Your task to perform on an android device: Search for the new Steph Curry shoes on Nike.com Image 0: 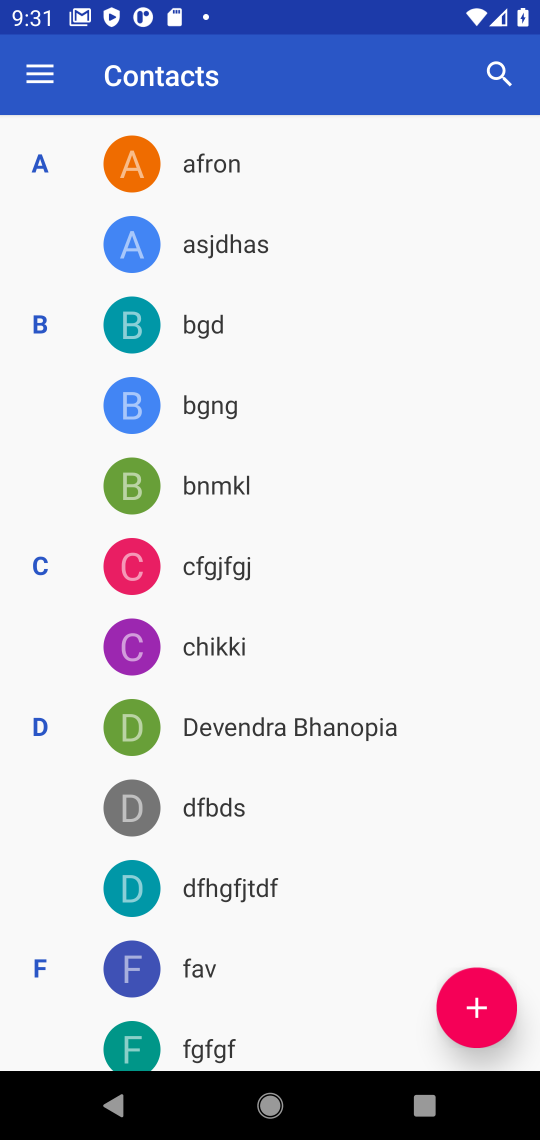
Step 0: press home button
Your task to perform on an android device: Search for the new Steph Curry shoes on Nike.com Image 1: 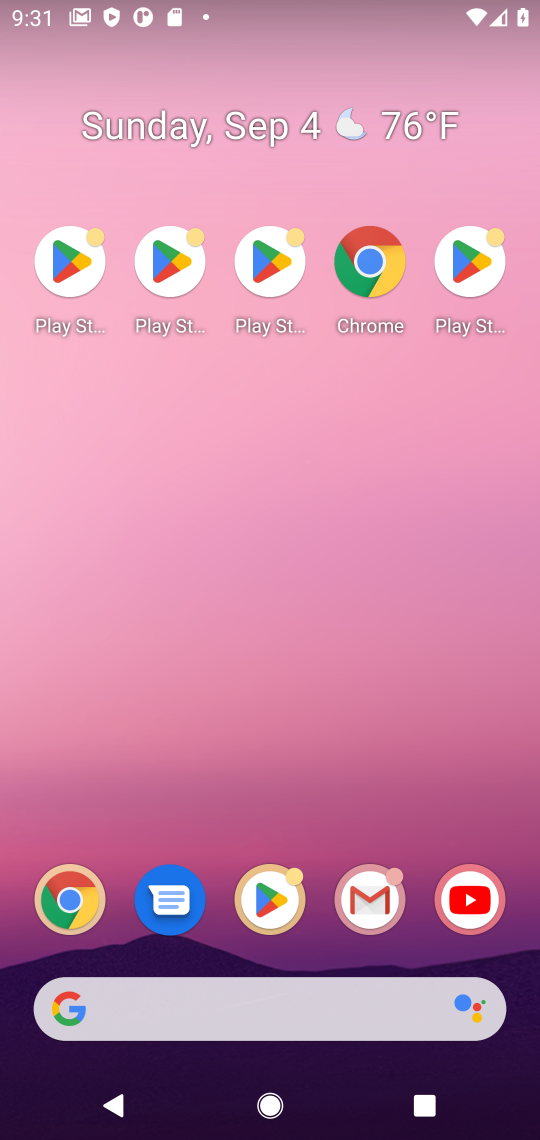
Step 1: drag from (290, 977) to (293, 74)
Your task to perform on an android device: Search for the new Steph Curry shoes on Nike.com Image 2: 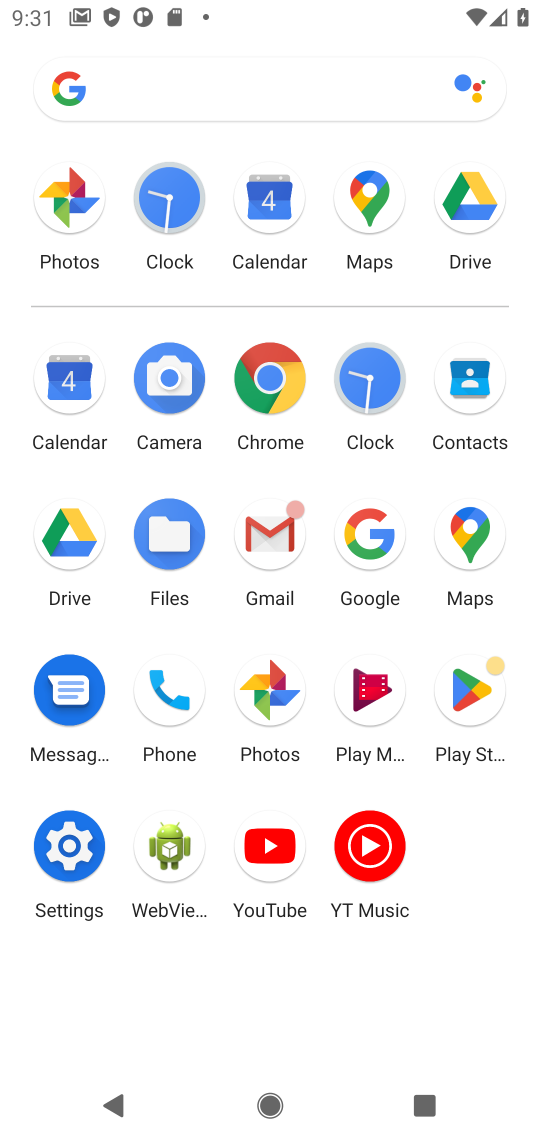
Step 2: click (298, 411)
Your task to perform on an android device: Search for the new Steph Curry shoes on Nike.com Image 3: 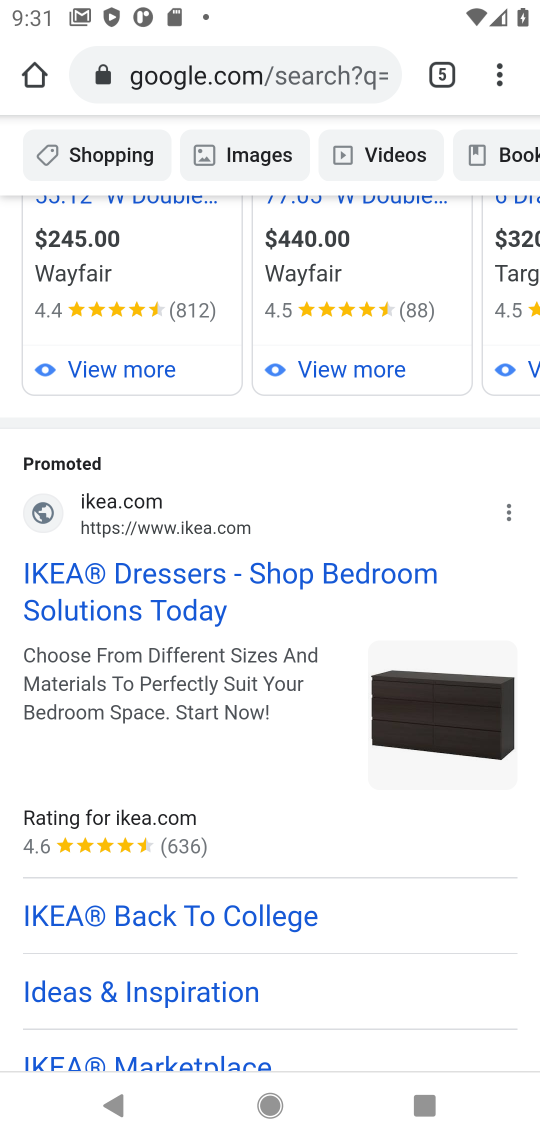
Step 3: click (448, 72)
Your task to perform on an android device: Search for the new Steph Curry shoes on Nike.com Image 4: 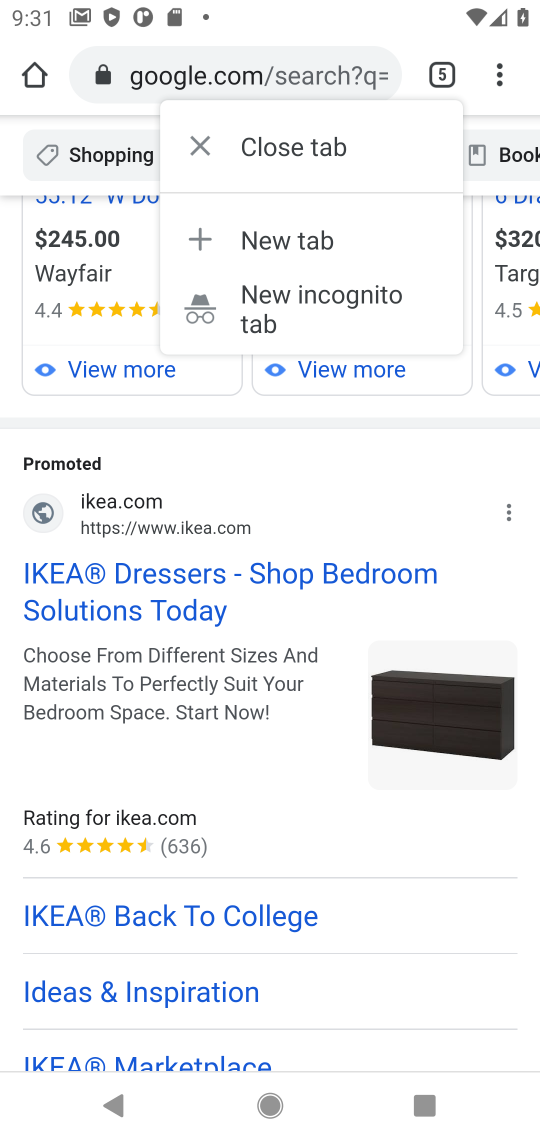
Step 4: click (298, 131)
Your task to perform on an android device: Search for the new Steph Curry shoes on Nike.com Image 5: 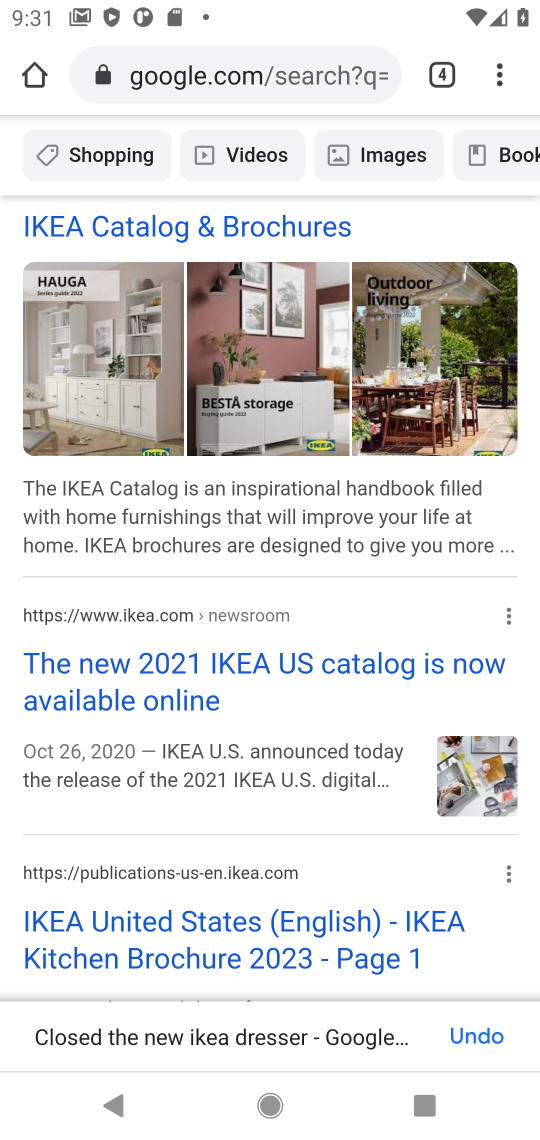
Step 5: click (38, 94)
Your task to perform on an android device: Search for the new Steph Curry shoes on Nike.com Image 6: 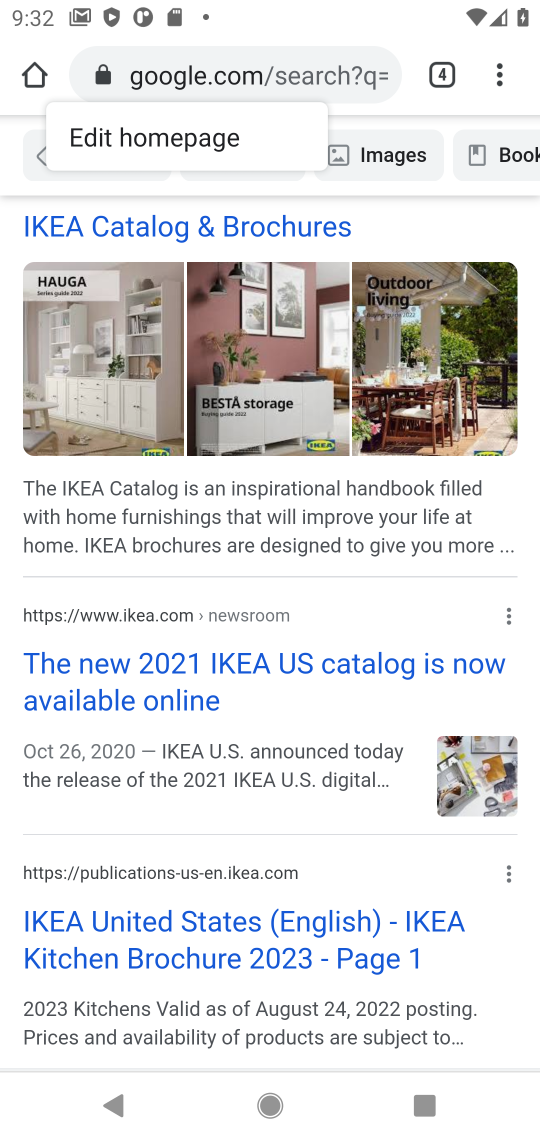
Step 6: click (420, 77)
Your task to perform on an android device: Search for the new Steph Curry shoes on Nike.com Image 7: 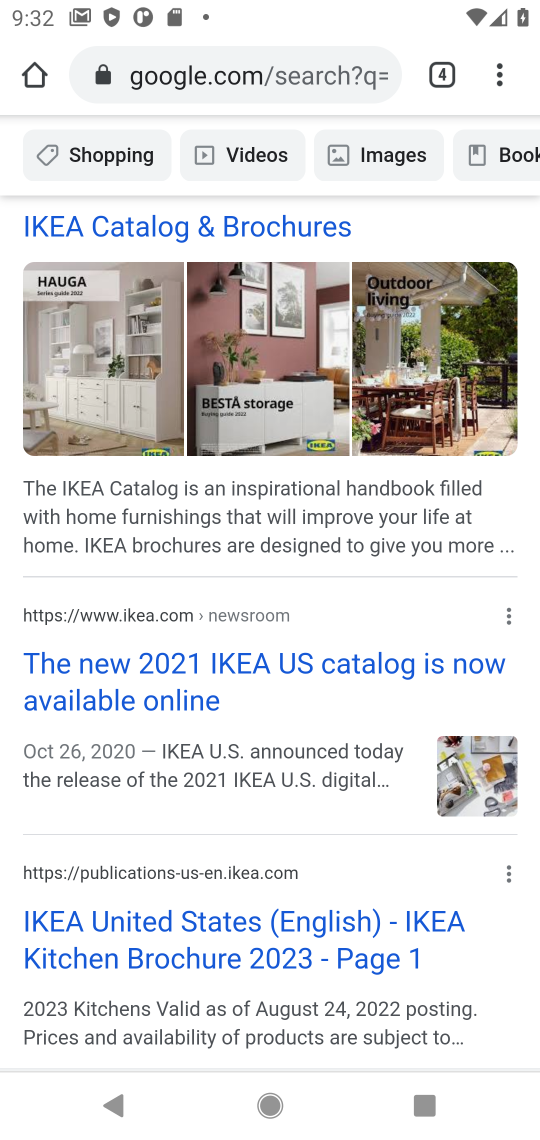
Step 7: click (444, 65)
Your task to perform on an android device: Search for the new Steph Curry shoes on Nike.com Image 8: 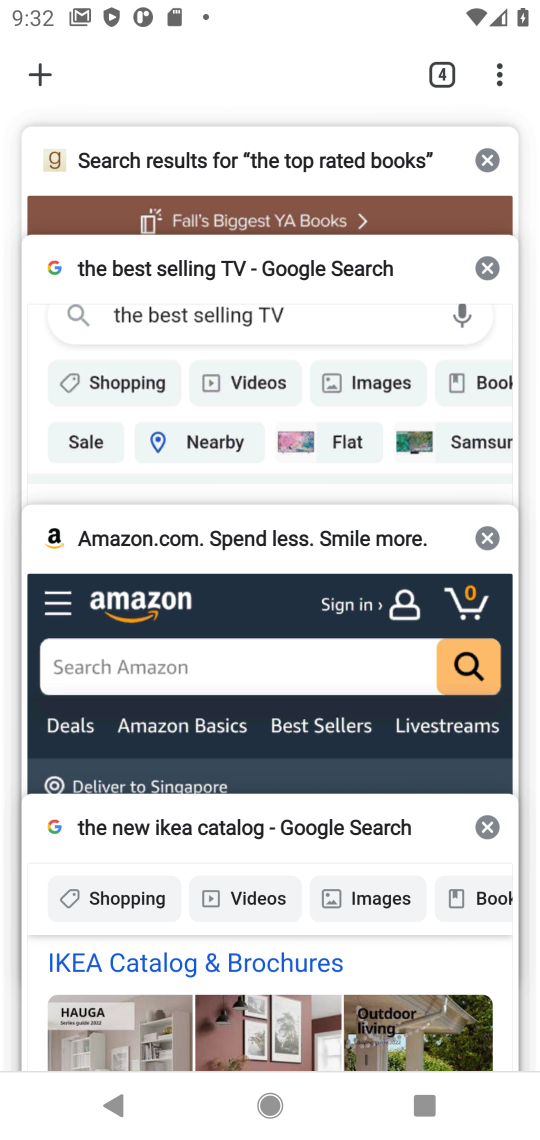
Step 8: click (30, 83)
Your task to perform on an android device: Search for the new Steph Curry shoes on Nike.com Image 9: 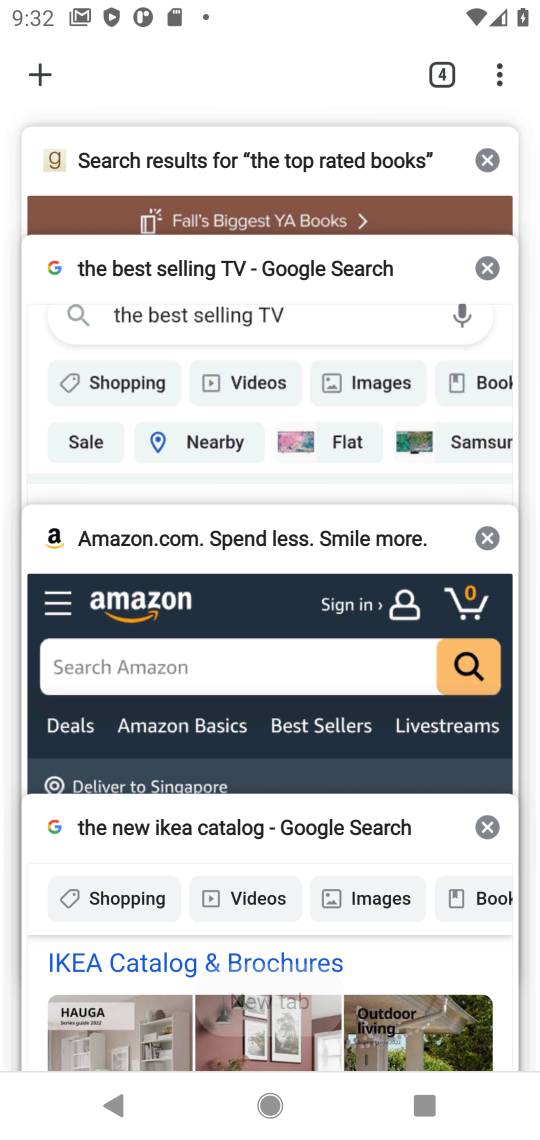
Step 9: click (29, 77)
Your task to perform on an android device: Search for the new Steph Curry shoes on Nike.com Image 10: 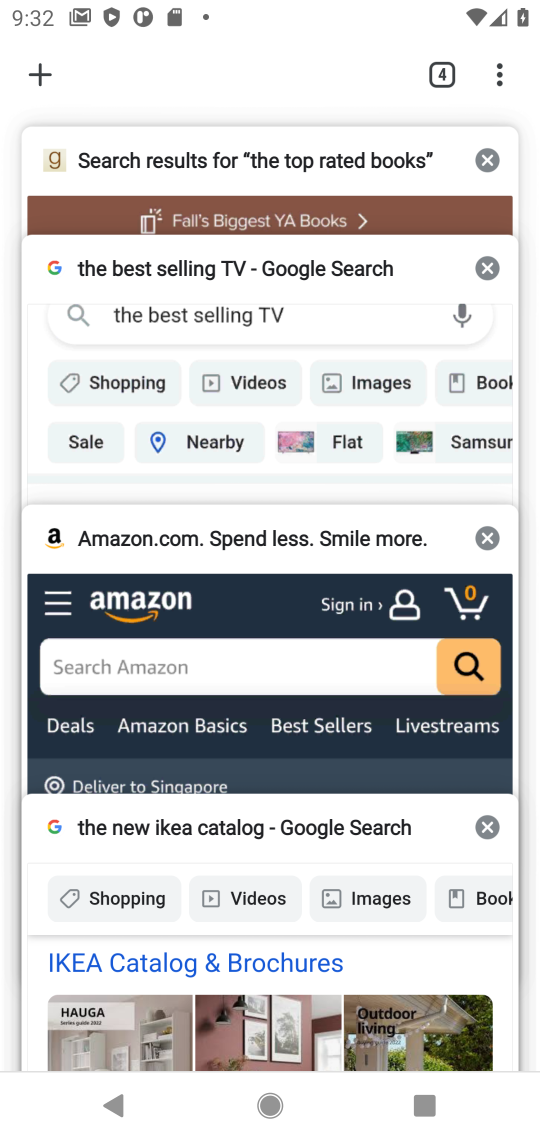
Step 10: click (37, 63)
Your task to perform on an android device: Search for the new Steph Curry shoes on Nike.com Image 11: 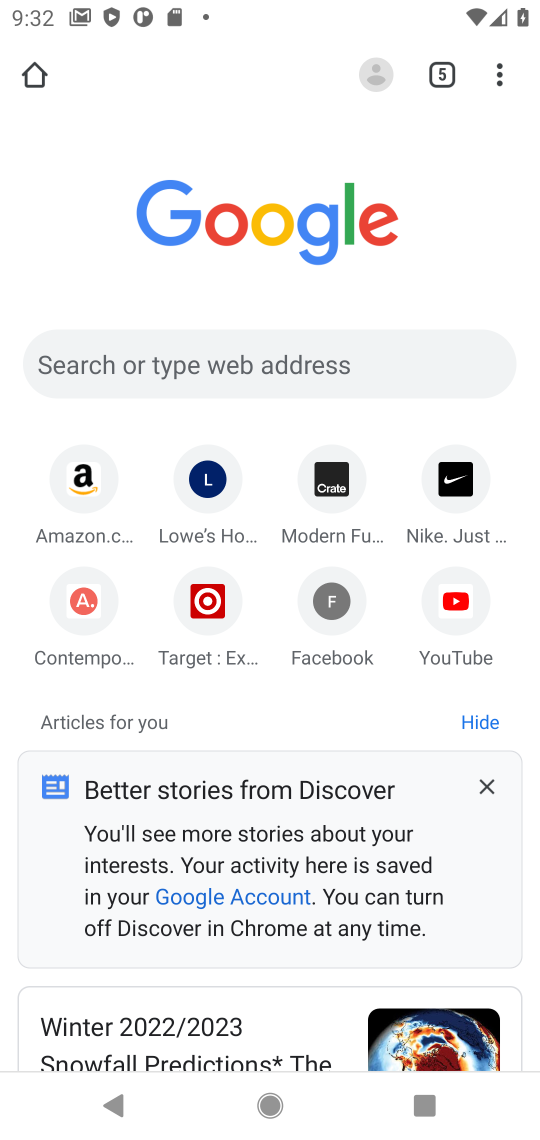
Step 11: type "Nike.com"
Your task to perform on an android device: Search for the new Steph Curry shoes on Nike.com Image 12: 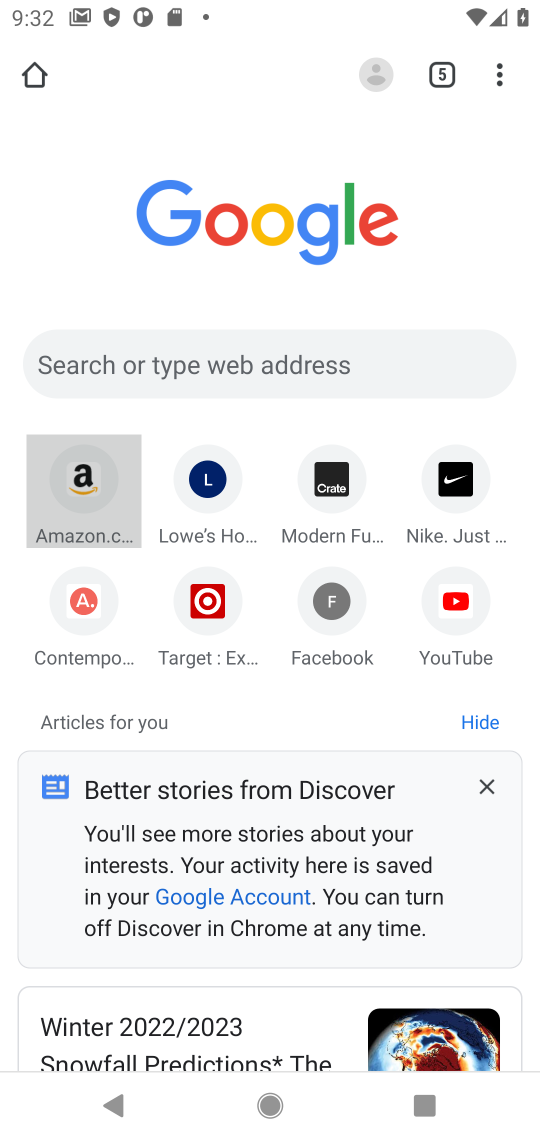
Step 12: type ""
Your task to perform on an android device: Search for the new Steph Curry shoes on Nike.com Image 13: 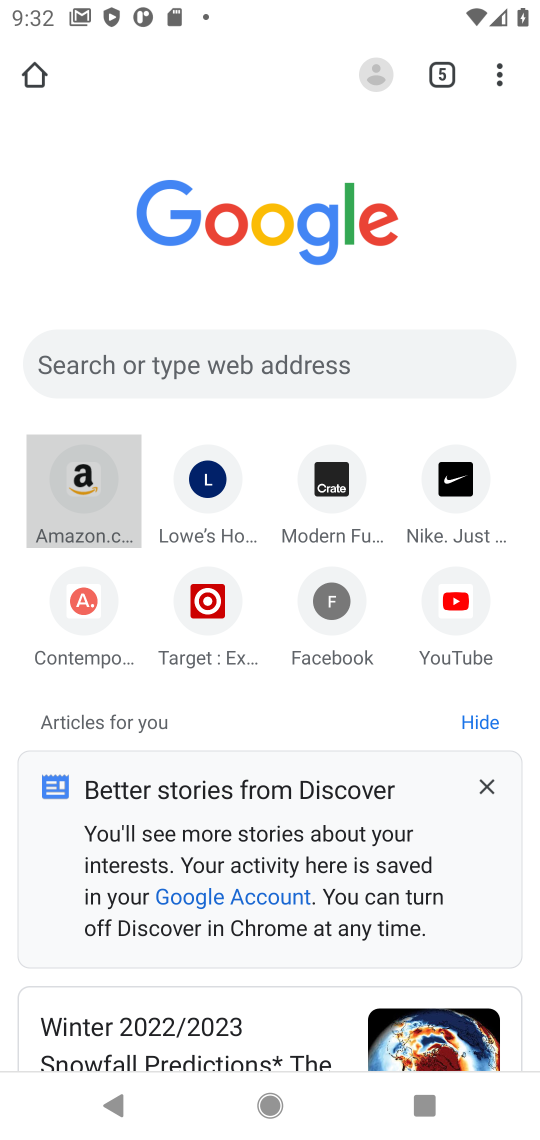
Step 13: click (214, 363)
Your task to perform on an android device: Search for the new Steph Curry shoes on Nike.com Image 14: 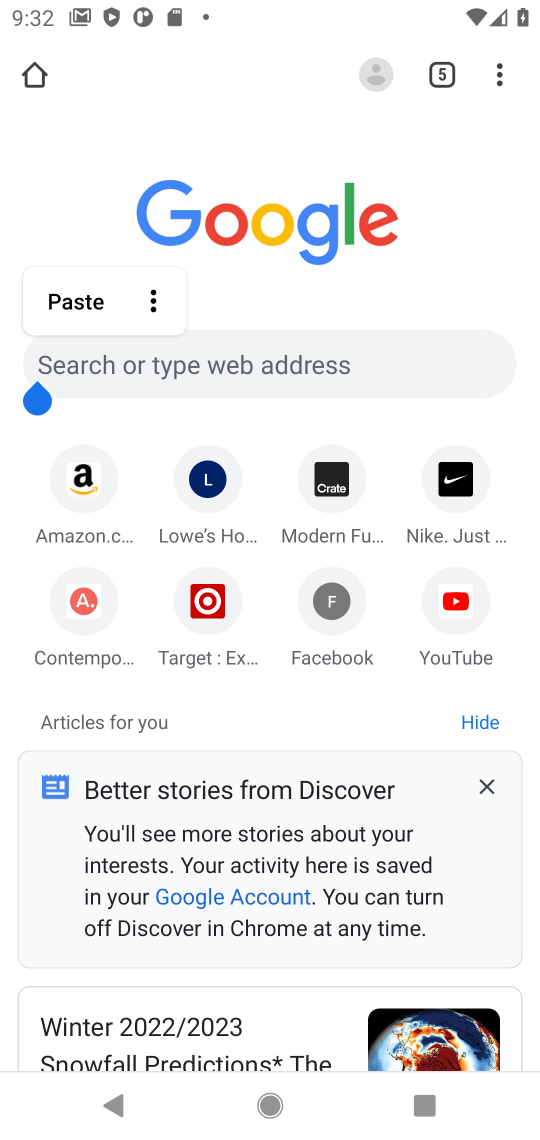
Step 14: click (420, 508)
Your task to perform on an android device: Search for the new Steph Curry shoes on Nike.com Image 15: 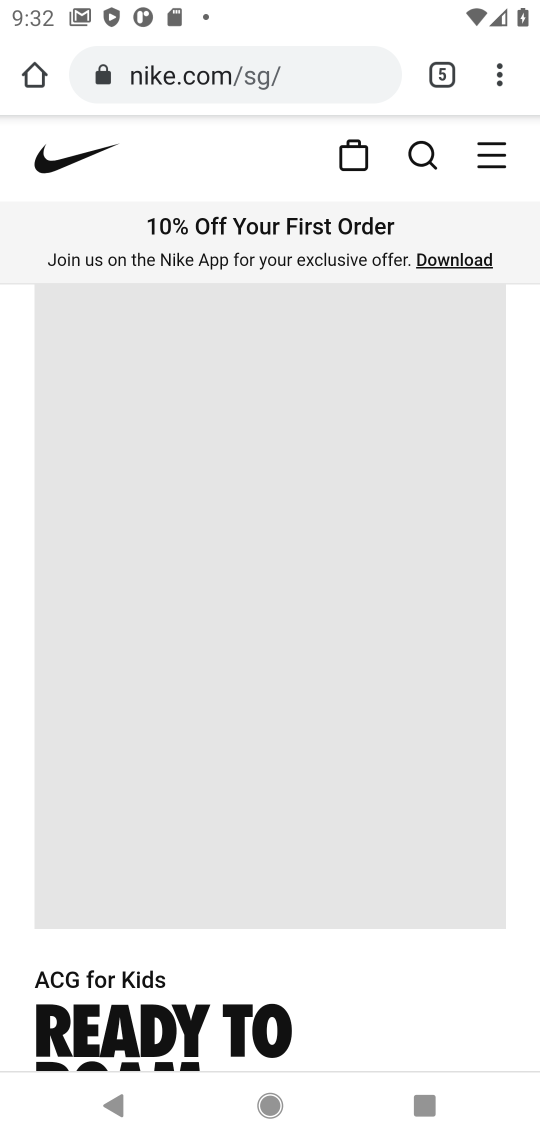
Step 15: drag from (343, 529) to (298, 209)
Your task to perform on an android device: Search for the new Steph Curry shoes on Nike.com Image 16: 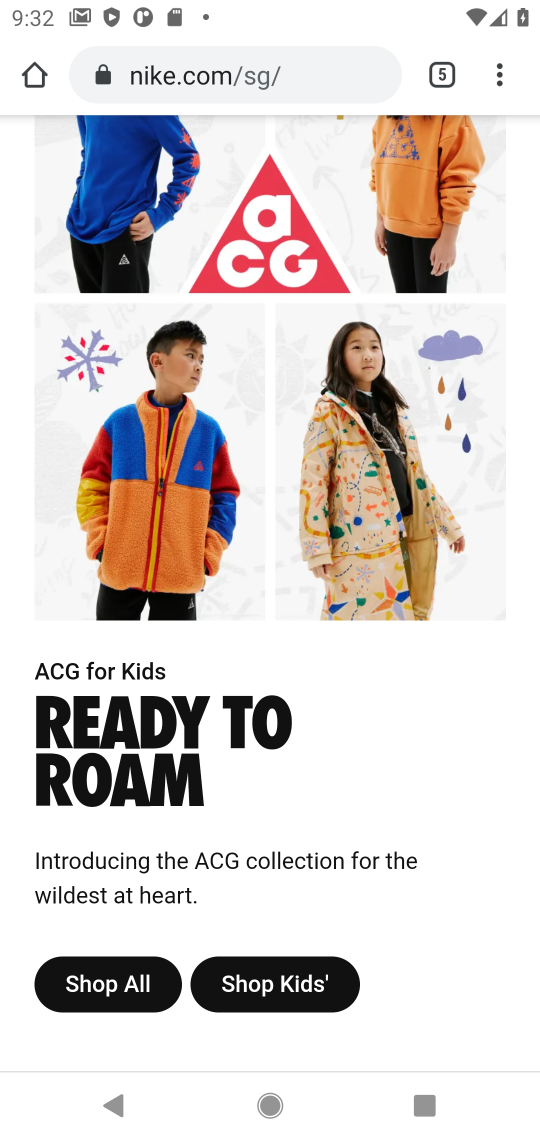
Step 16: drag from (378, 725) to (319, 198)
Your task to perform on an android device: Search for the new Steph Curry shoes on Nike.com Image 17: 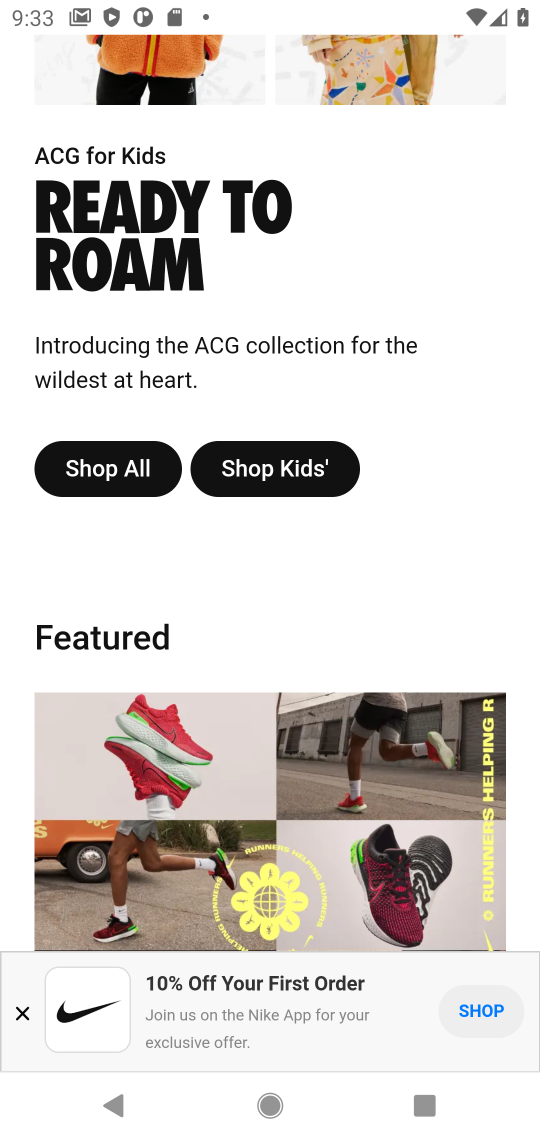
Step 17: drag from (233, 868) to (151, 252)
Your task to perform on an android device: Search for the new Steph Curry shoes on Nike.com Image 18: 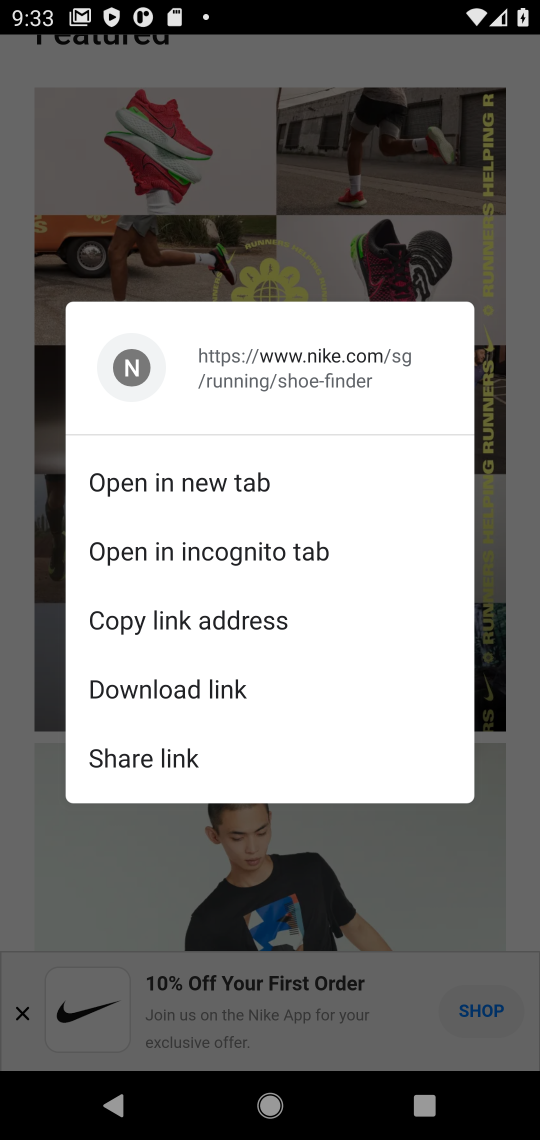
Step 18: drag from (167, 460) to (230, 203)
Your task to perform on an android device: Search for the new Steph Curry shoes on Nike.com Image 19: 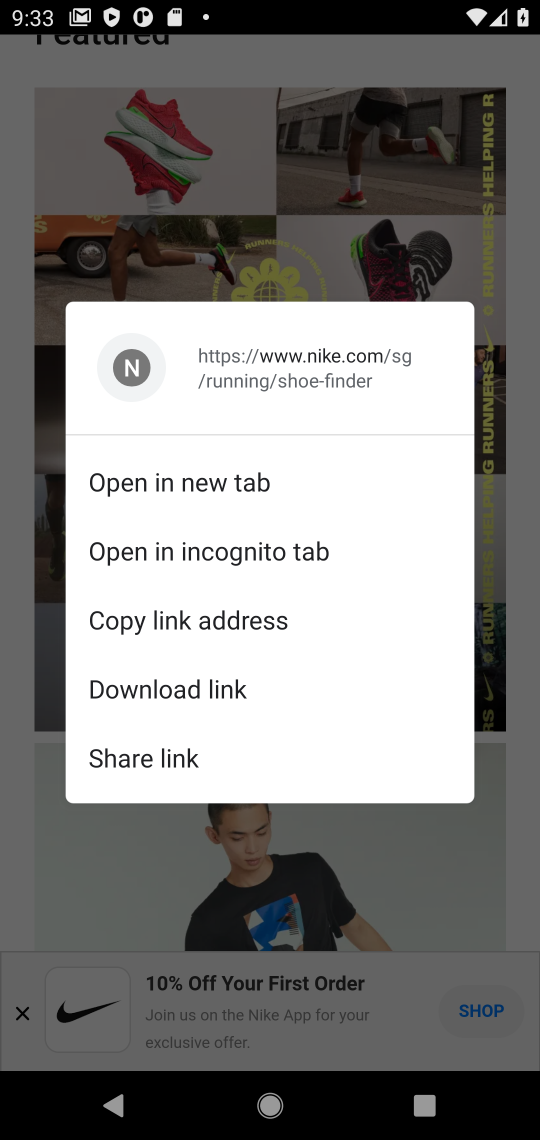
Step 19: click (39, 900)
Your task to perform on an android device: Search for the new Steph Curry shoes on Nike.com Image 20: 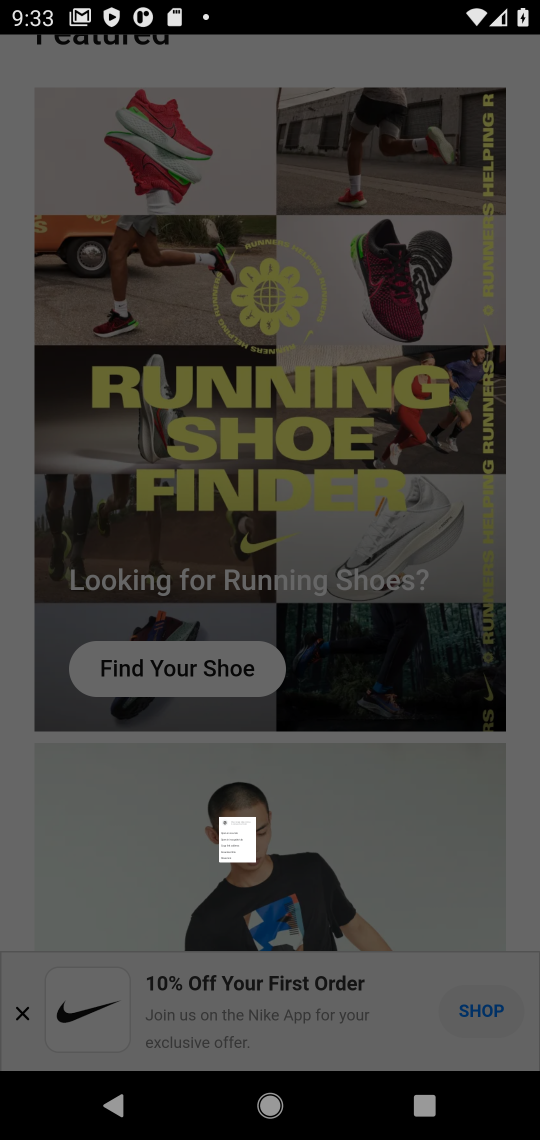
Step 20: click (20, 1020)
Your task to perform on an android device: Search for the new Steph Curry shoes on Nike.com Image 21: 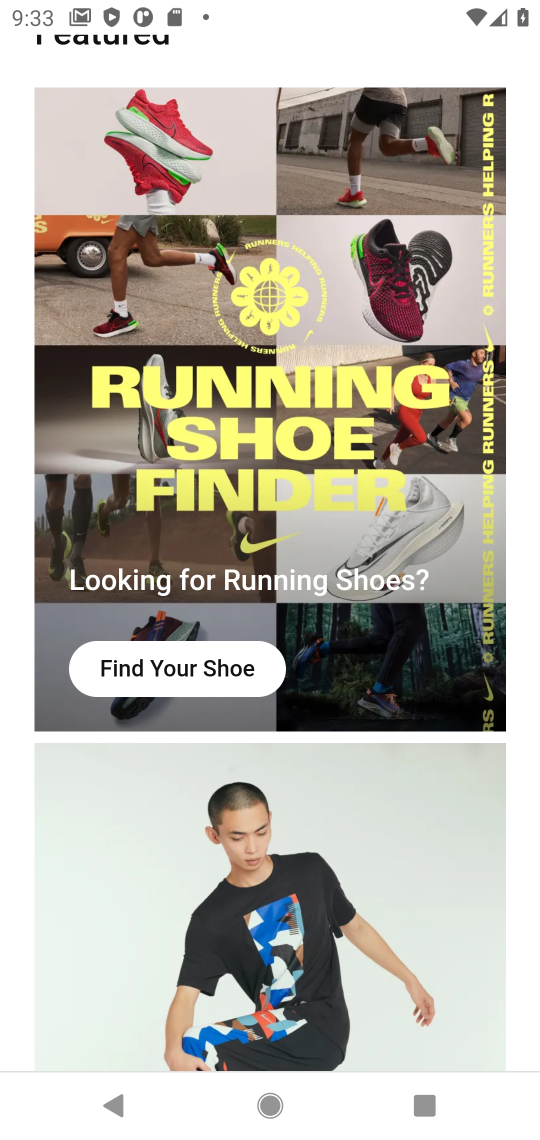
Step 21: drag from (198, 779) to (136, 251)
Your task to perform on an android device: Search for the new Steph Curry shoes on Nike.com Image 22: 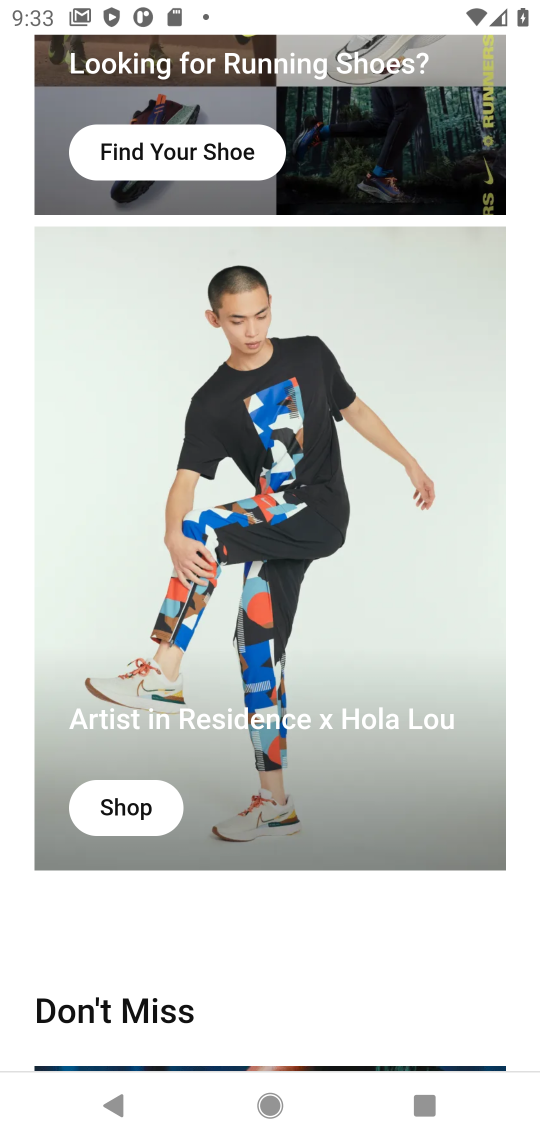
Step 22: drag from (429, 723) to (382, 4)
Your task to perform on an android device: Search for the new Steph Curry shoes on Nike.com Image 23: 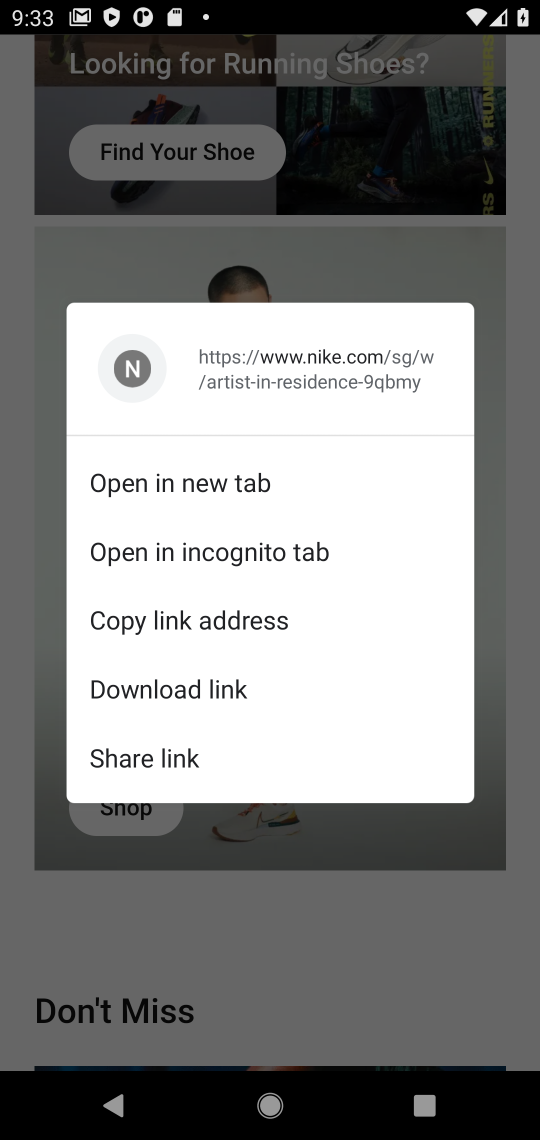
Step 23: click (396, 881)
Your task to perform on an android device: Search for the new Steph Curry shoes on Nike.com Image 24: 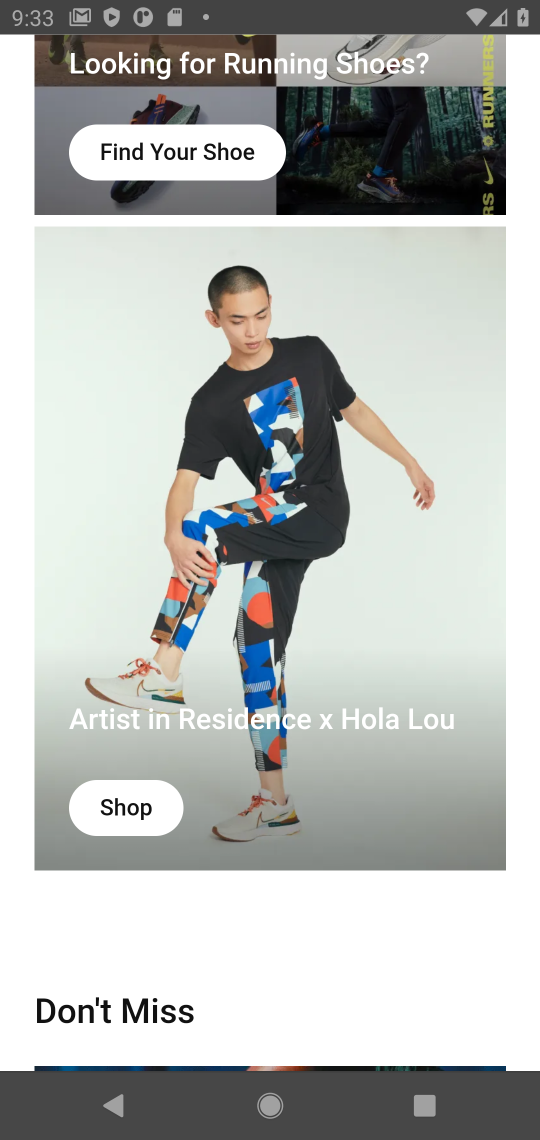
Step 24: task complete